Your task to perform on an android device: Open the Play Movies app and select the watchlist tab. Image 0: 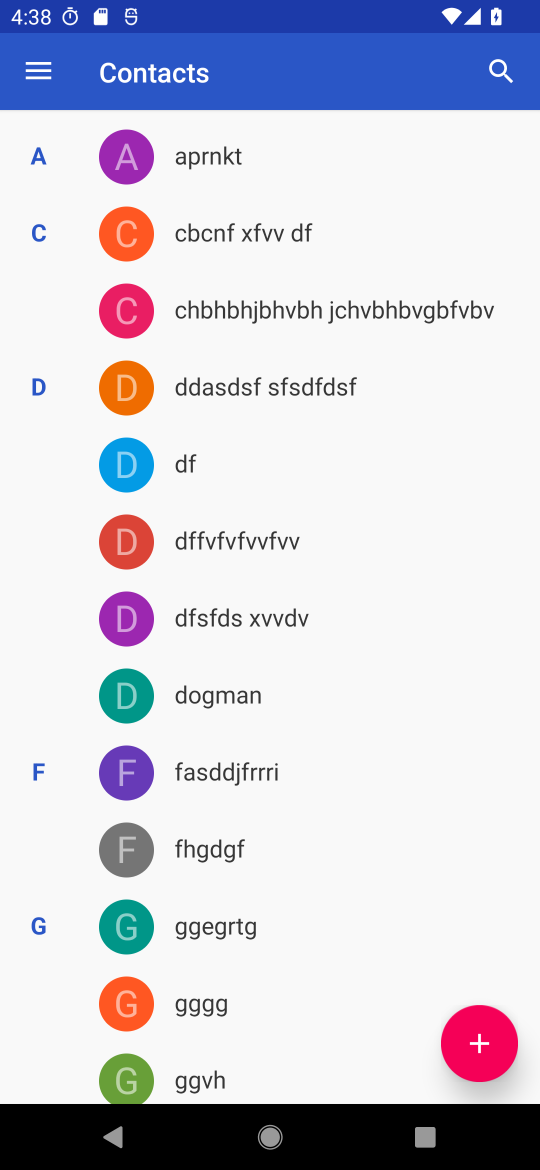
Step 0: press home button
Your task to perform on an android device: Open the Play Movies app and select the watchlist tab. Image 1: 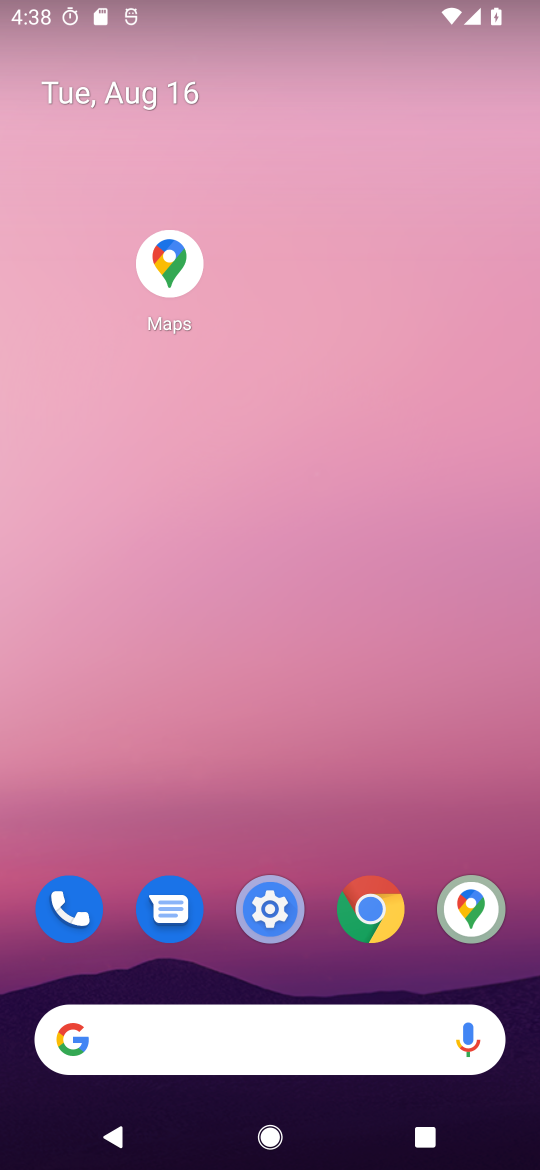
Step 1: drag from (263, 894) to (170, 3)
Your task to perform on an android device: Open the Play Movies app and select the watchlist tab. Image 2: 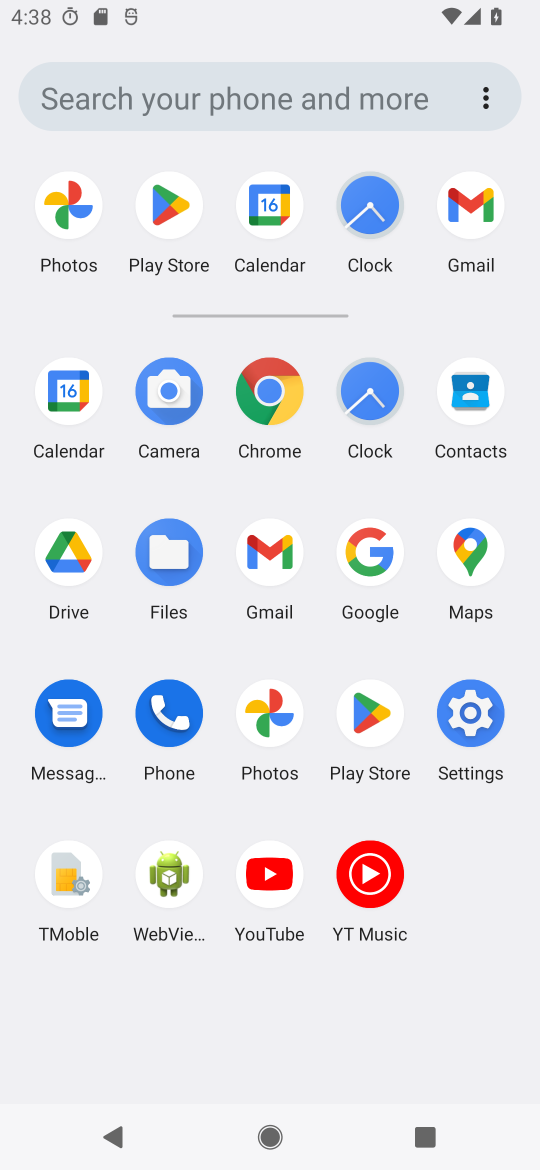
Step 2: click (175, 708)
Your task to perform on an android device: Open the Play Movies app and select the watchlist tab. Image 3: 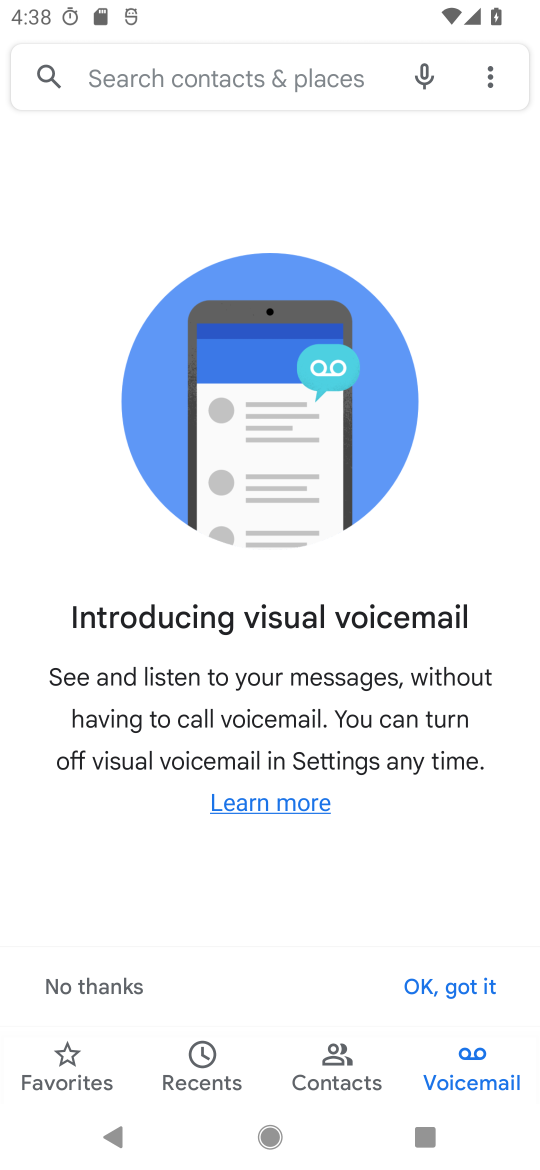
Step 3: click (456, 1073)
Your task to perform on an android device: Open the Play Movies app and select the watchlist tab. Image 4: 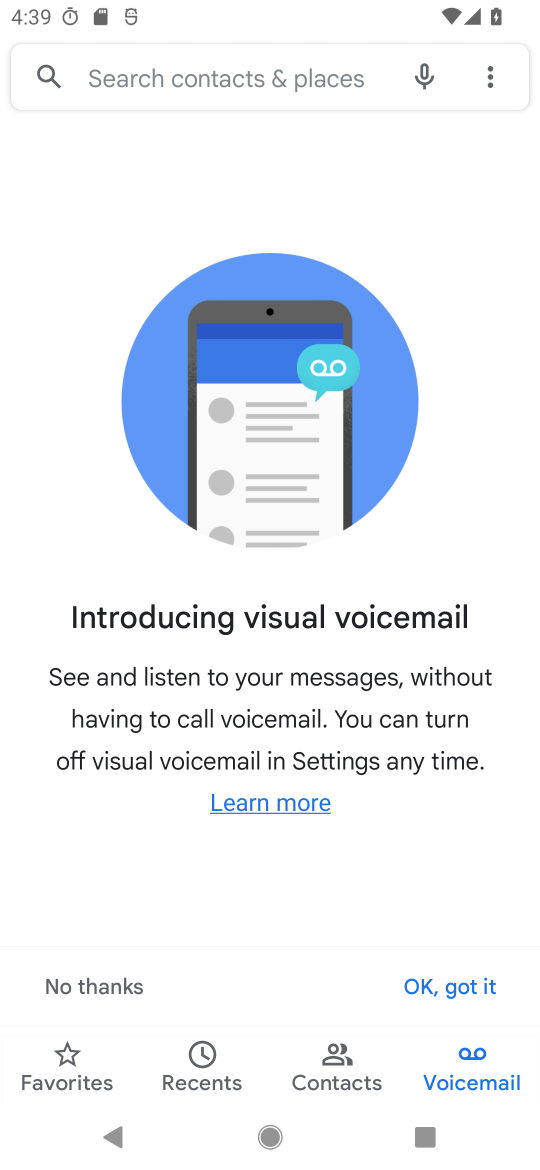
Step 4: task complete